Your task to perform on an android device: turn on sleep mode Image 0: 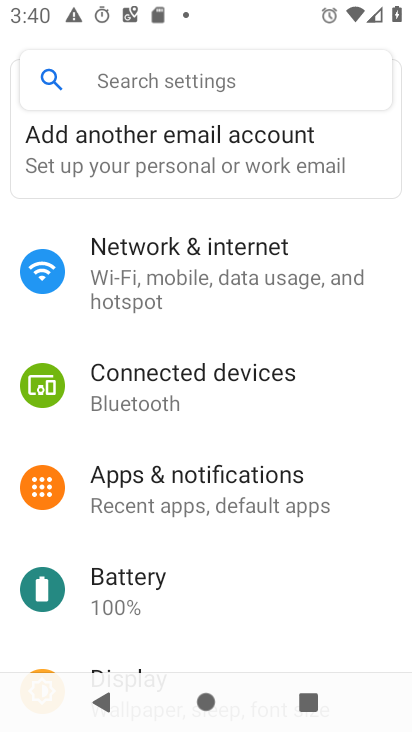
Step 0: drag from (251, 549) to (305, 179)
Your task to perform on an android device: turn on sleep mode Image 1: 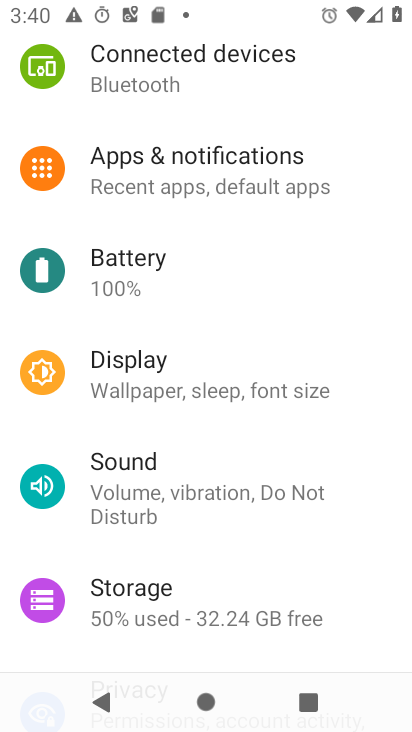
Step 1: click (149, 363)
Your task to perform on an android device: turn on sleep mode Image 2: 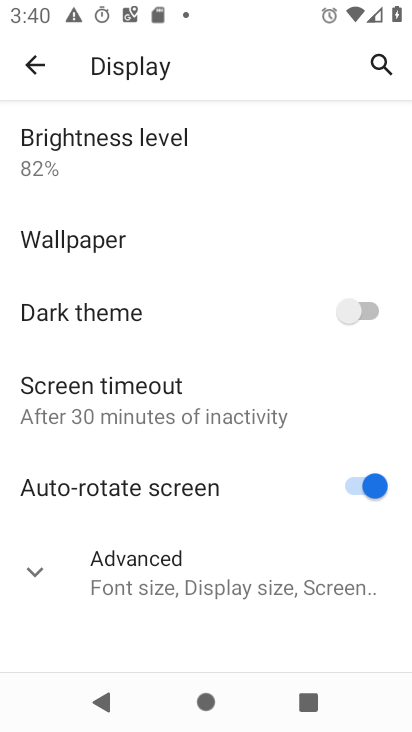
Step 2: click (180, 402)
Your task to perform on an android device: turn on sleep mode Image 3: 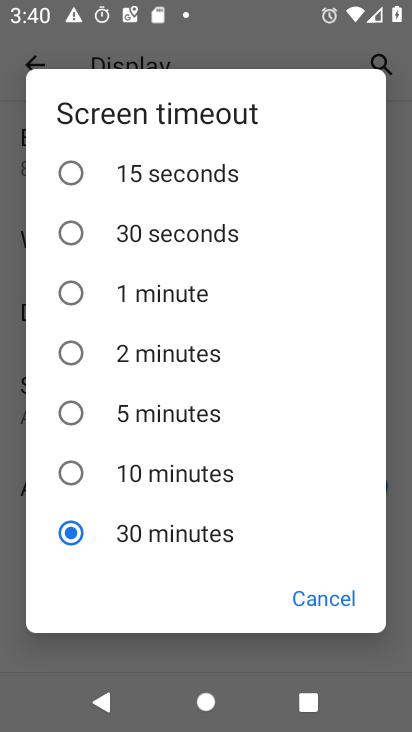
Step 3: task complete